Your task to perform on an android device: What's the weather? Image 0: 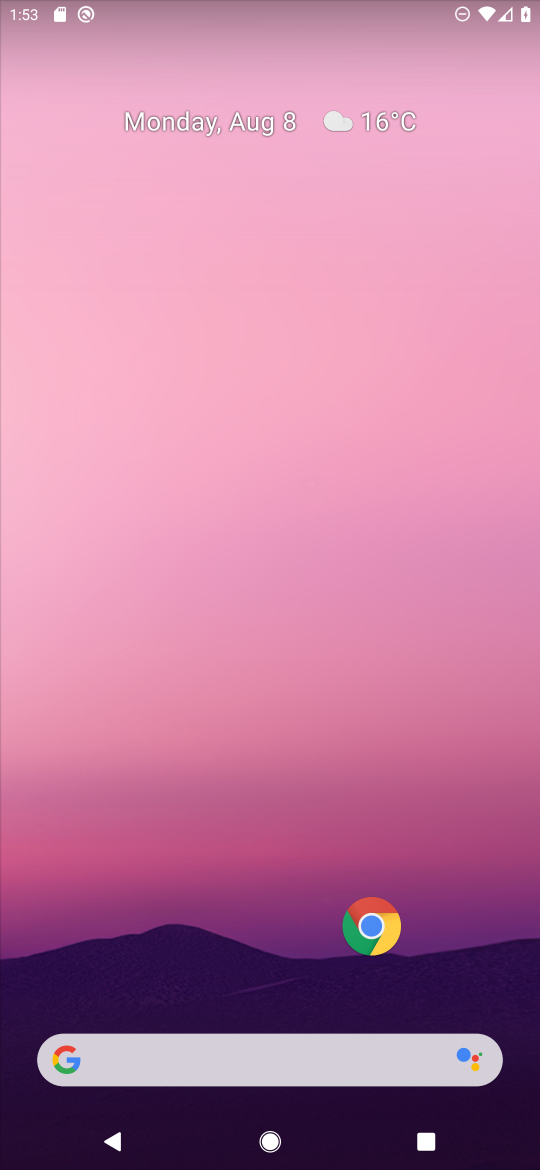
Step 0: drag from (351, 1011) to (357, 253)
Your task to perform on an android device: What's the weather? Image 1: 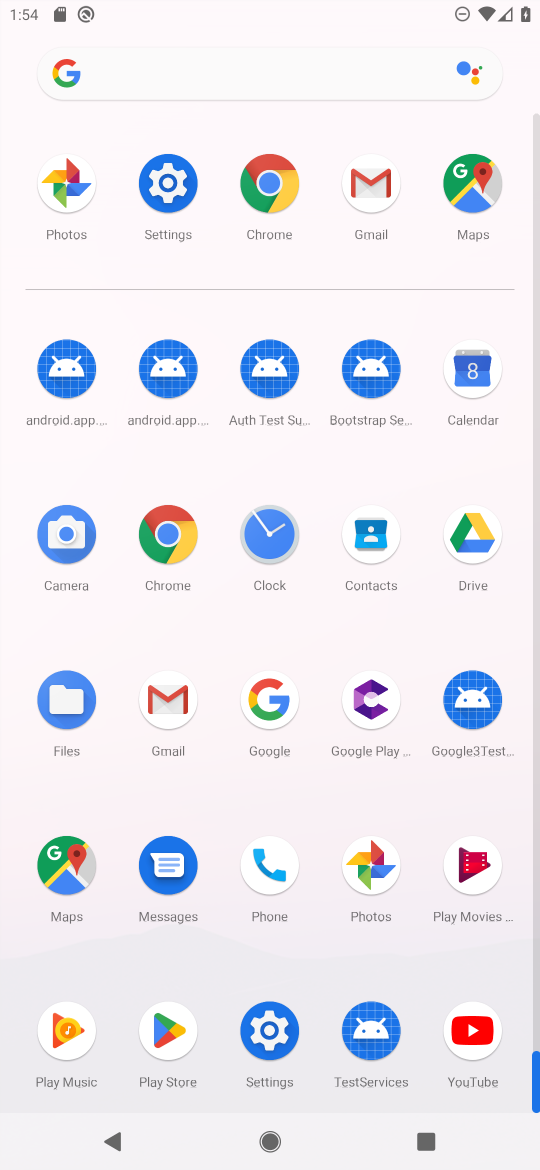
Step 1: click (245, 184)
Your task to perform on an android device: What's the weather? Image 2: 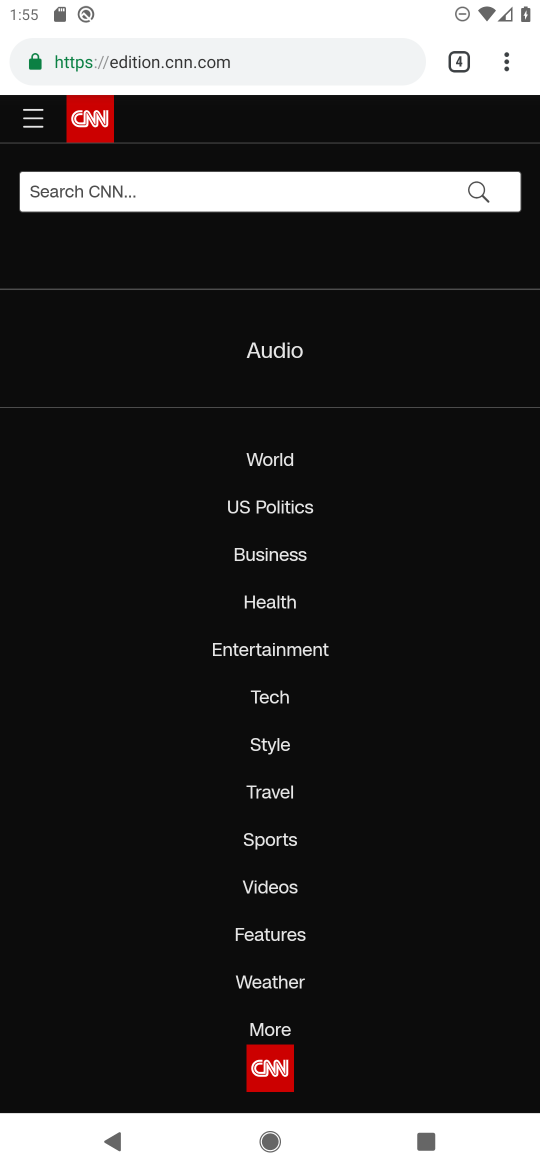
Step 2: click (522, 54)
Your task to perform on an android device: What's the weather? Image 3: 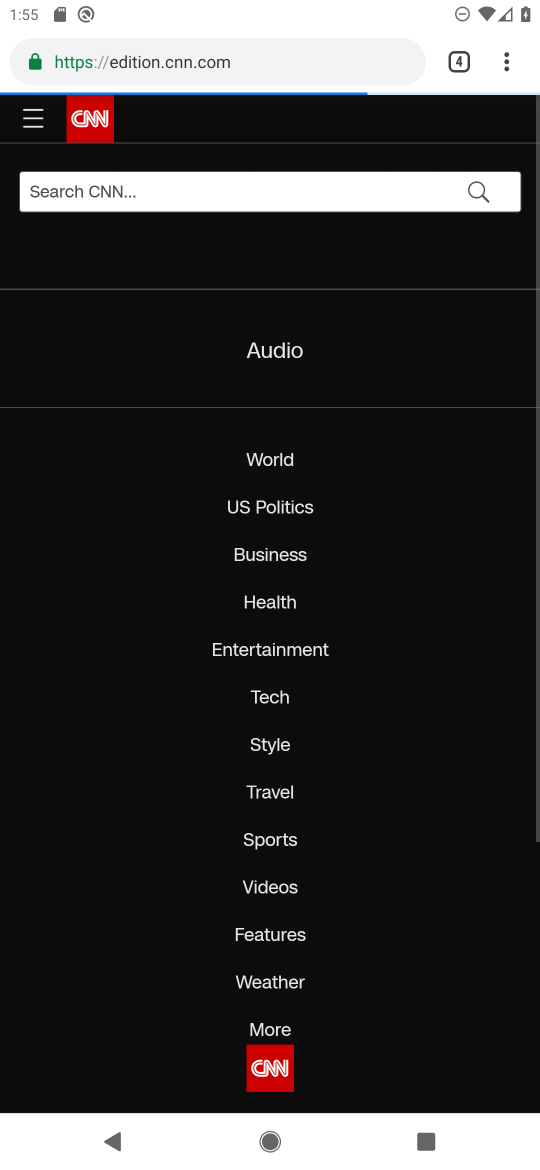
Step 3: click (514, 63)
Your task to perform on an android device: What's the weather? Image 4: 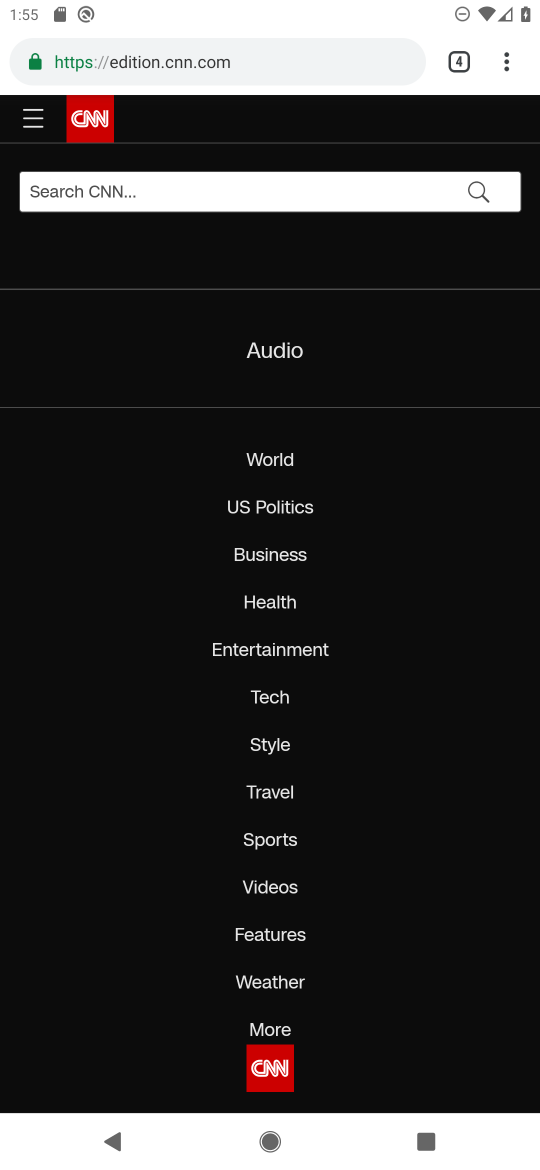
Step 4: click (497, 66)
Your task to perform on an android device: What's the weather? Image 5: 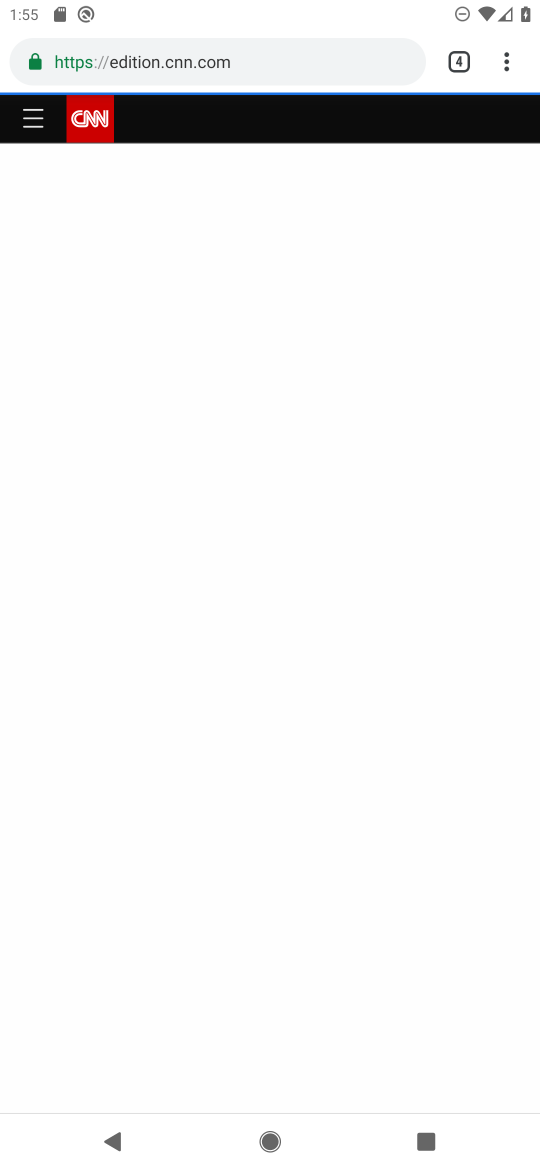
Step 5: click (506, 58)
Your task to perform on an android device: What's the weather? Image 6: 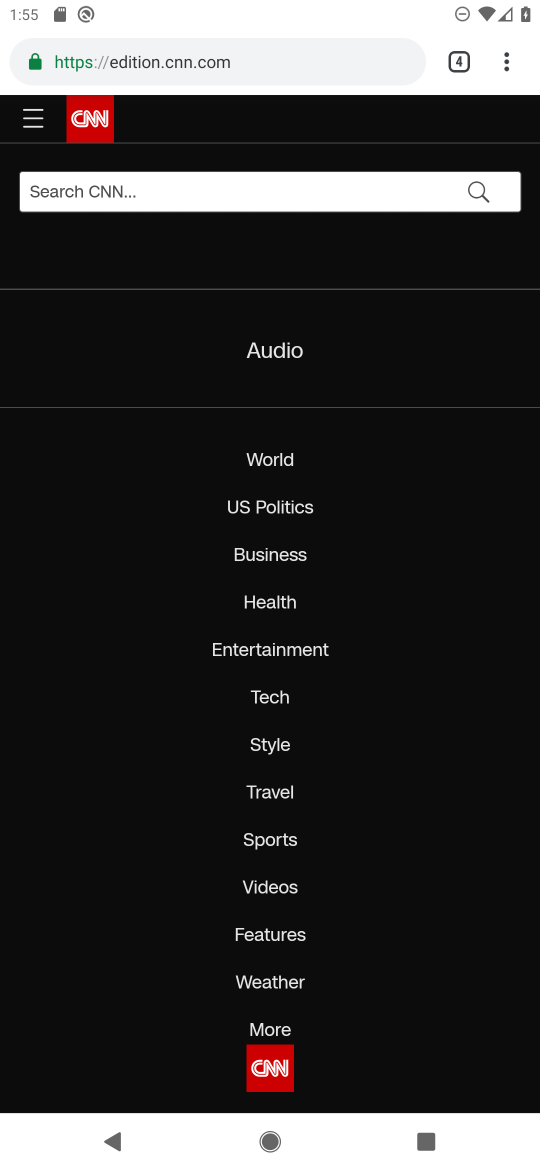
Step 6: click (506, 58)
Your task to perform on an android device: What's the weather? Image 7: 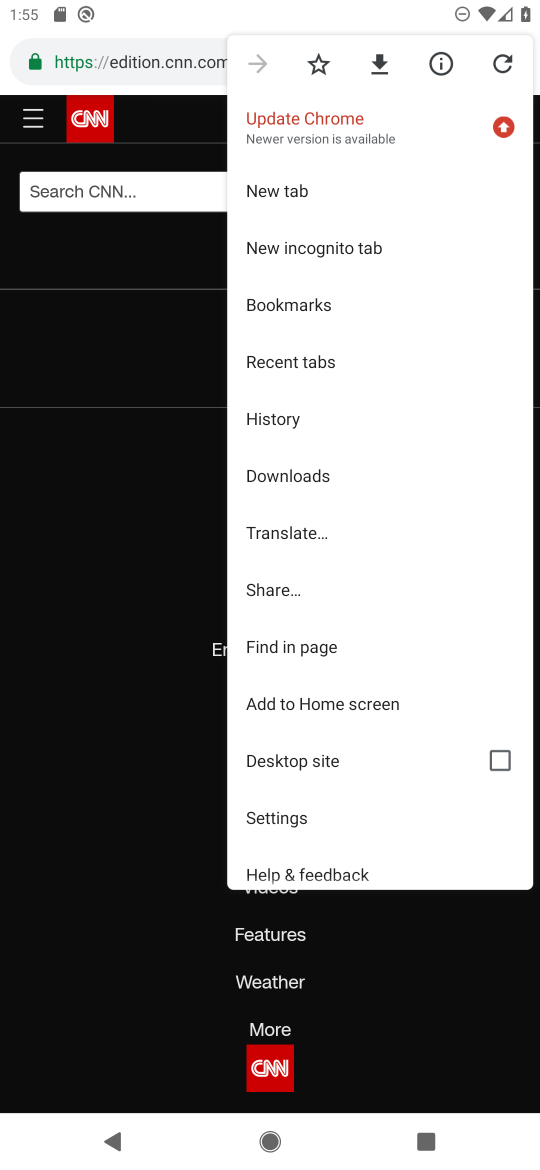
Step 7: click (280, 191)
Your task to perform on an android device: What's the weather? Image 8: 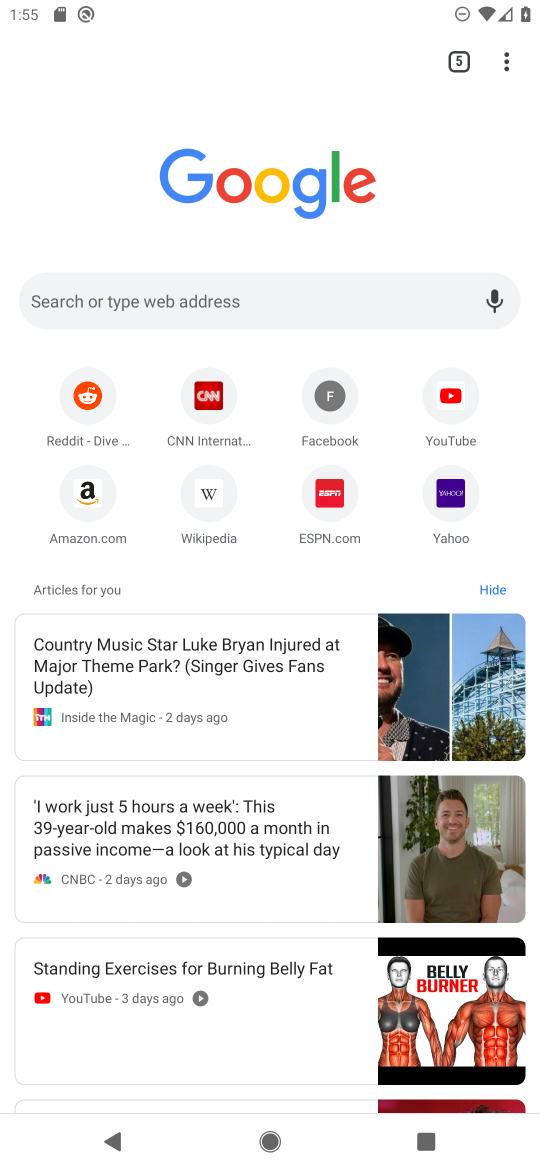
Step 8: click (275, 303)
Your task to perform on an android device: What's the weather? Image 9: 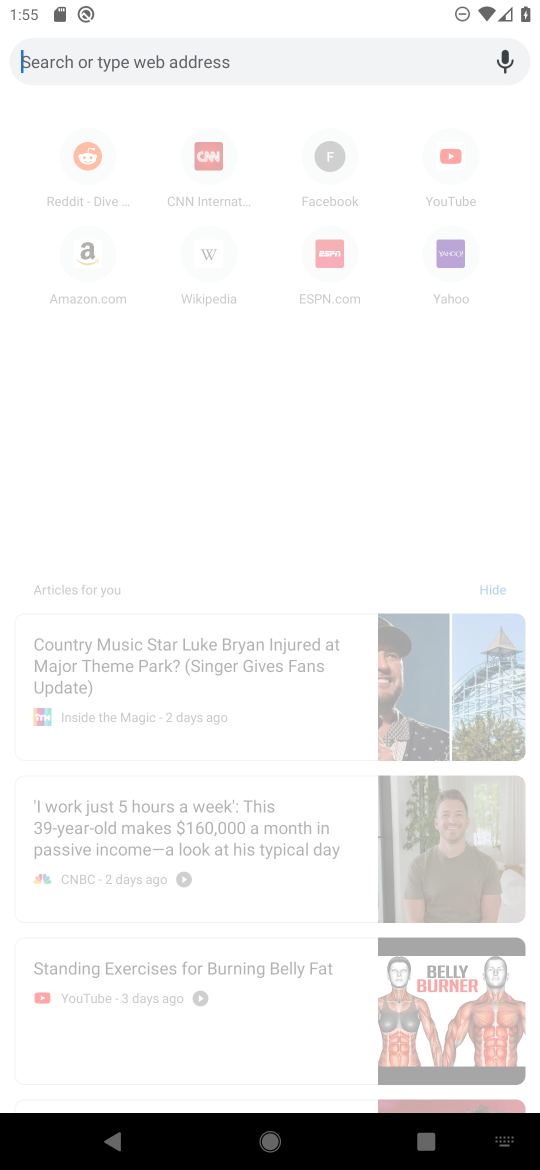
Step 9: type "What's the weather? "
Your task to perform on an android device: What's the weather? Image 10: 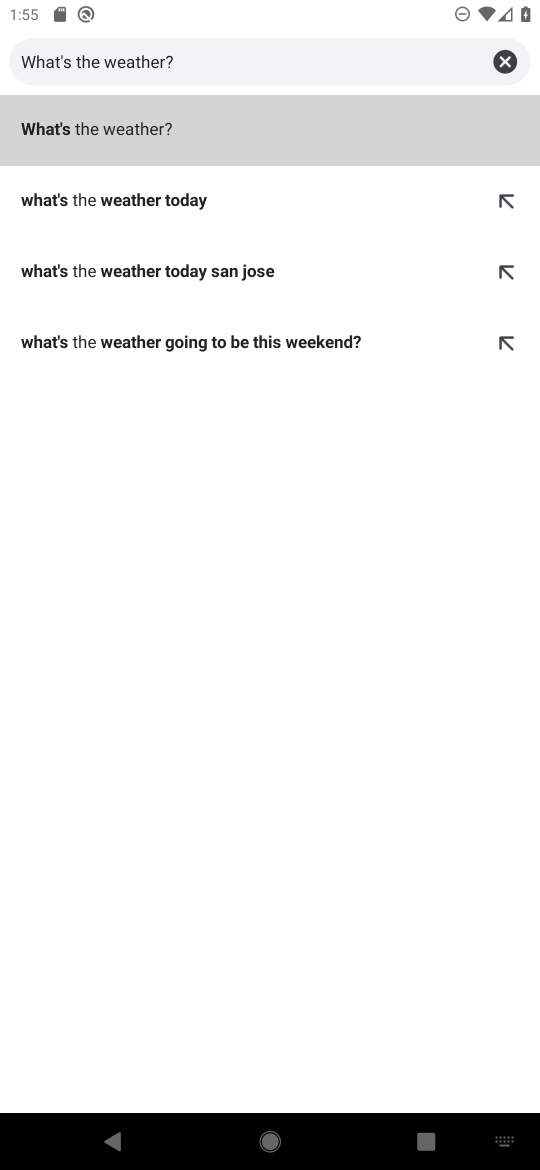
Step 10: click (130, 104)
Your task to perform on an android device: What's the weather? Image 11: 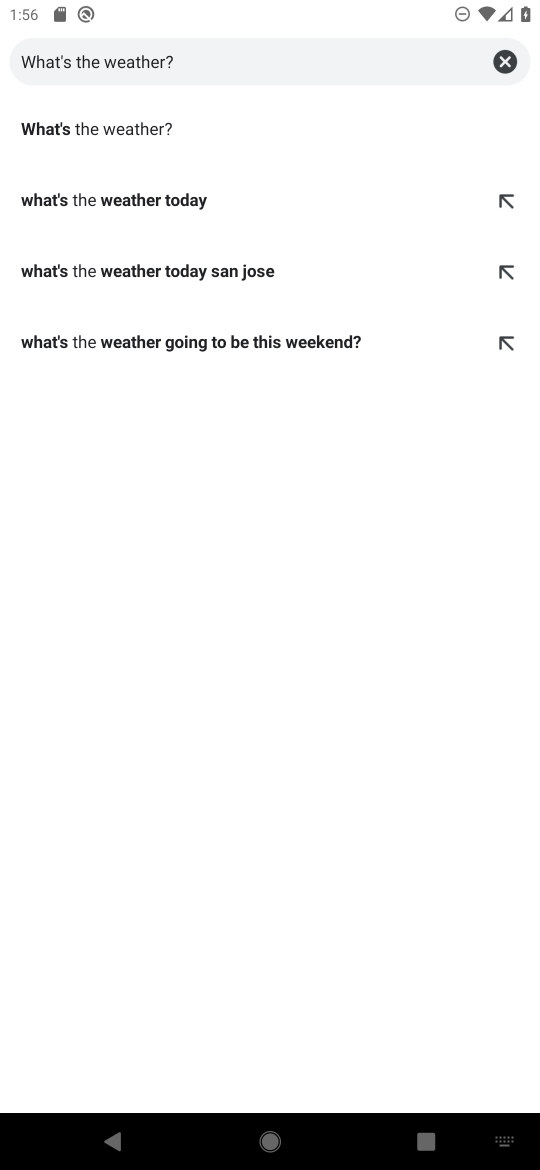
Step 11: click (145, 113)
Your task to perform on an android device: What's the weather? Image 12: 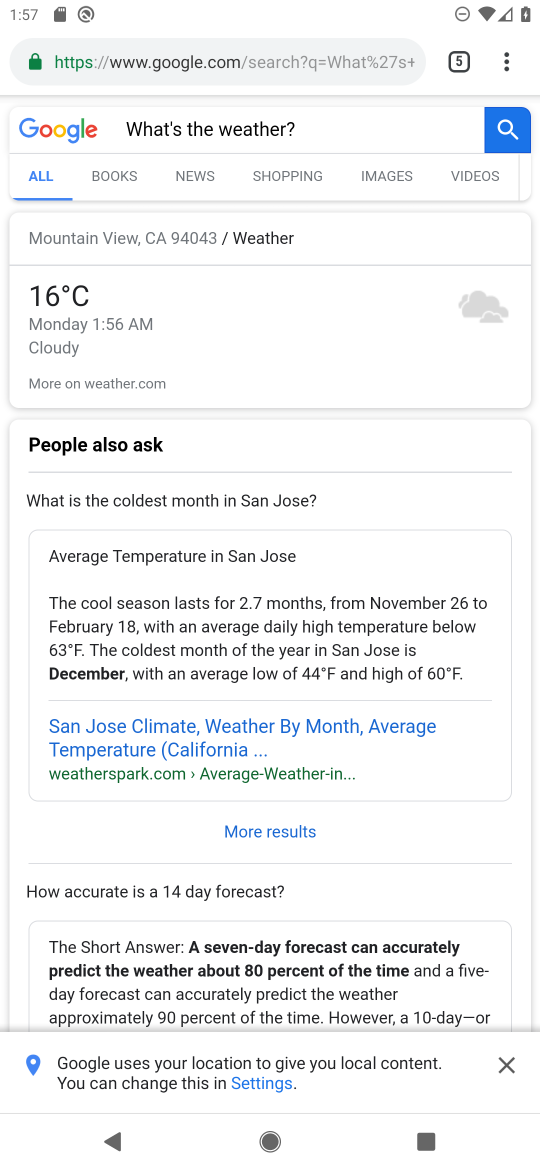
Step 12: task complete